Your task to perform on an android device: Go to Yahoo.com Image 0: 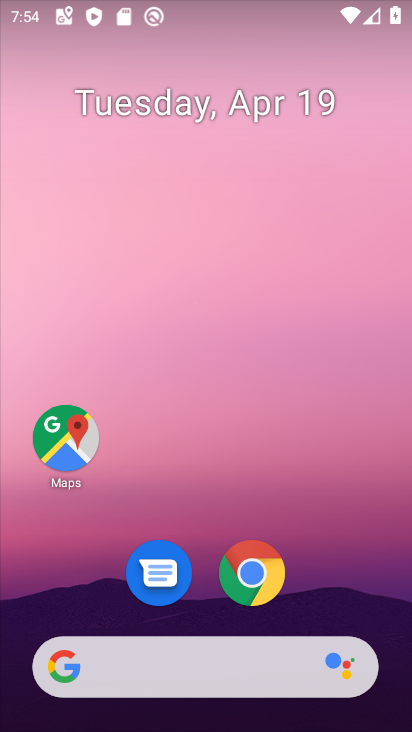
Step 0: click (249, 560)
Your task to perform on an android device: Go to Yahoo.com Image 1: 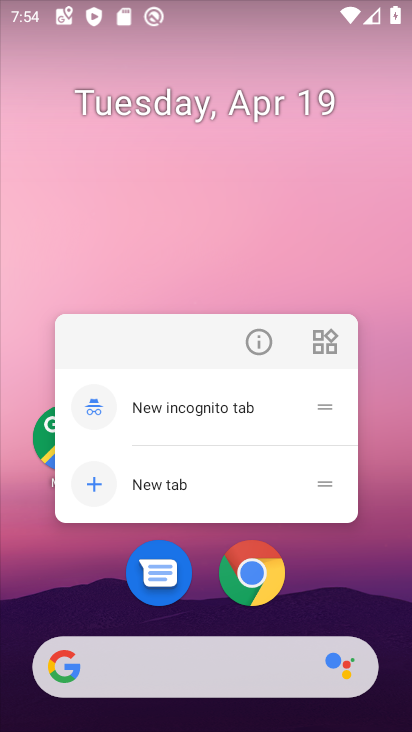
Step 1: click (247, 558)
Your task to perform on an android device: Go to Yahoo.com Image 2: 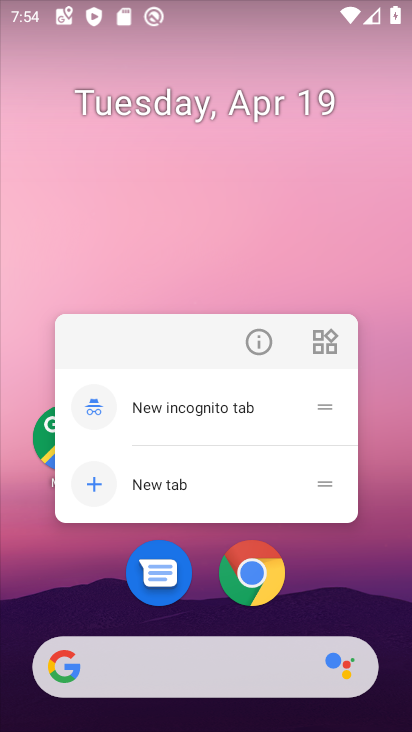
Step 2: drag from (204, 702) to (199, 30)
Your task to perform on an android device: Go to Yahoo.com Image 3: 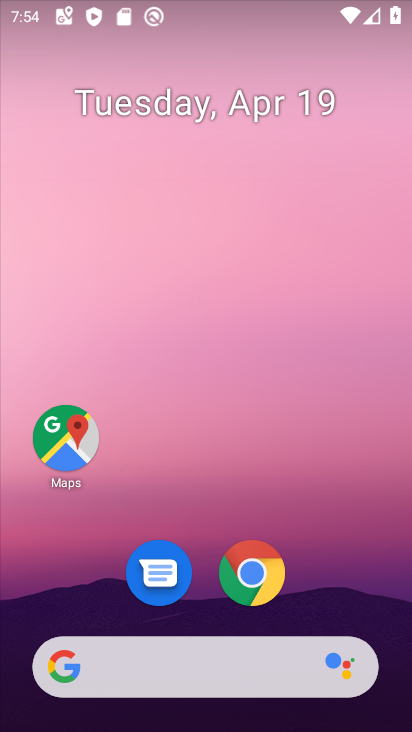
Step 3: drag from (214, 706) to (193, 48)
Your task to perform on an android device: Go to Yahoo.com Image 4: 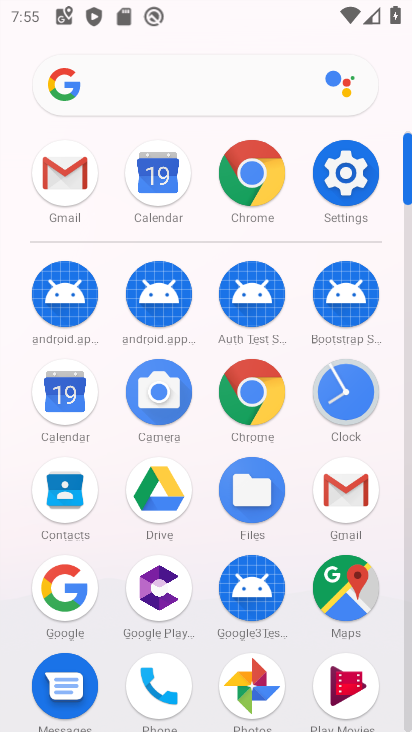
Step 4: click (256, 169)
Your task to perform on an android device: Go to Yahoo.com Image 5: 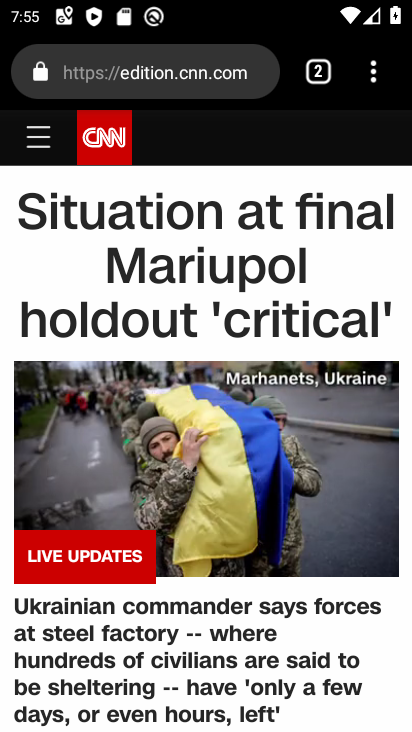
Step 5: click (365, 78)
Your task to perform on an android device: Go to Yahoo.com Image 6: 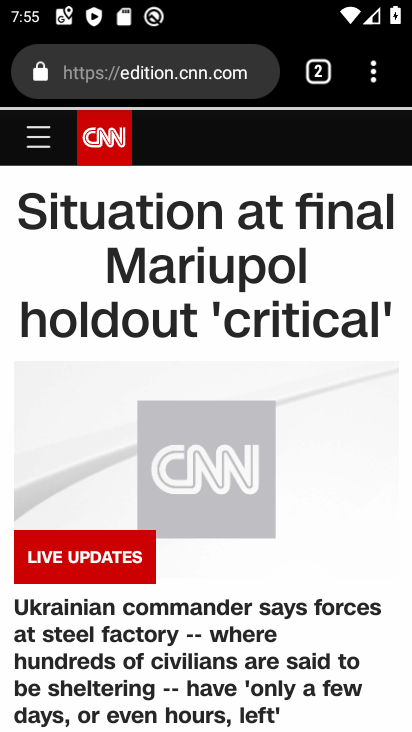
Step 6: click (187, 68)
Your task to perform on an android device: Go to Yahoo.com Image 7: 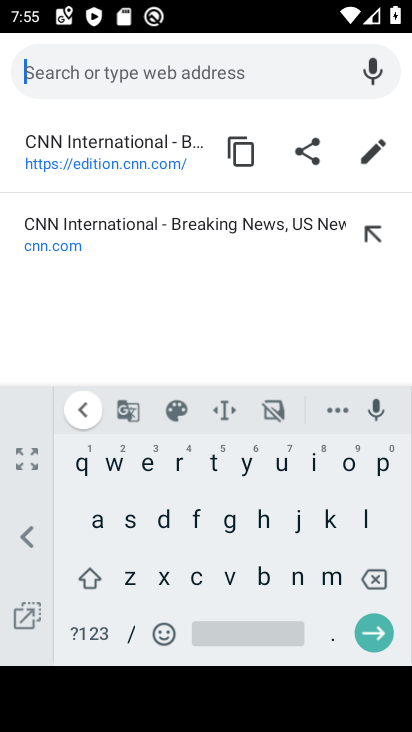
Step 7: click (245, 461)
Your task to perform on an android device: Go to Yahoo.com Image 8: 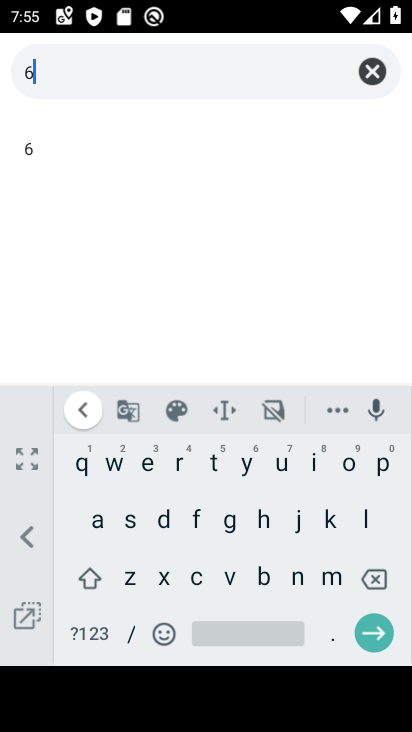
Step 8: click (29, 459)
Your task to perform on an android device: Go to Yahoo.com Image 9: 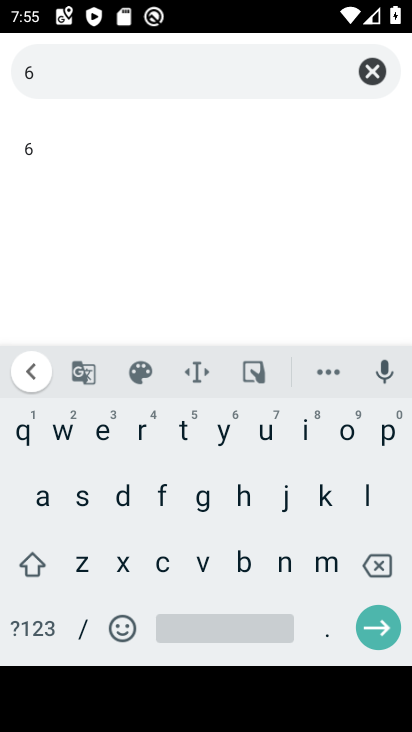
Step 9: click (381, 562)
Your task to perform on an android device: Go to Yahoo.com Image 10: 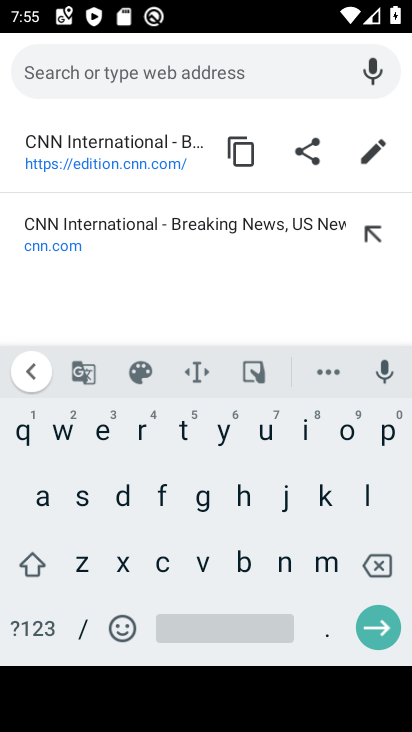
Step 10: click (228, 438)
Your task to perform on an android device: Go to Yahoo.com Image 11: 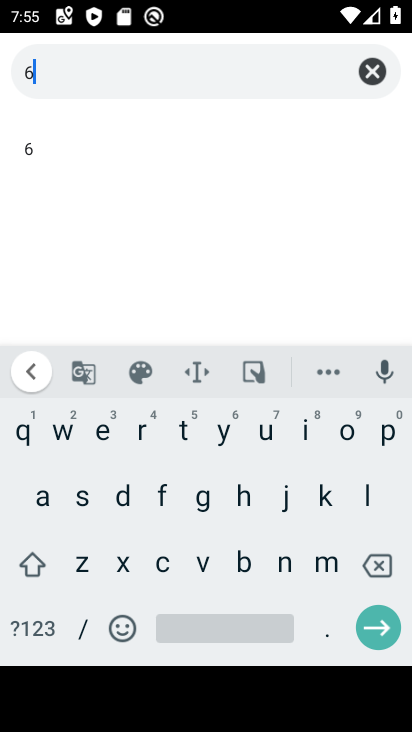
Step 11: click (375, 563)
Your task to perform on an android device: Go to Yahoo.com Image 12: 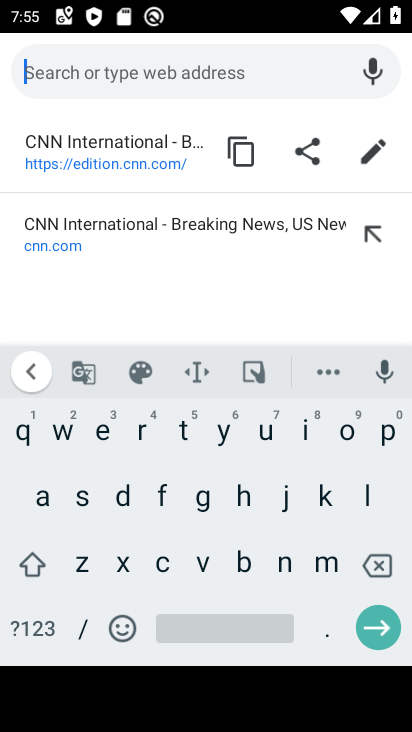
Step 12: click (223, 437)
Your task to perform on an android device: Go to Yahoo.com Image 13: 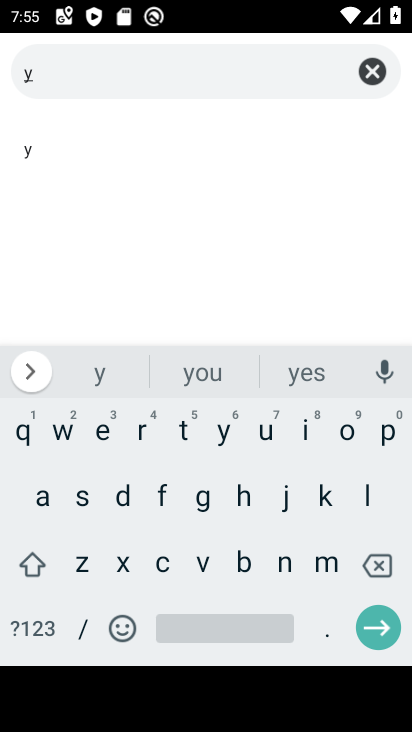
Step 13: click (42, 502)
Your task to perform on an android device: Go to Yahoo.com Image 14: 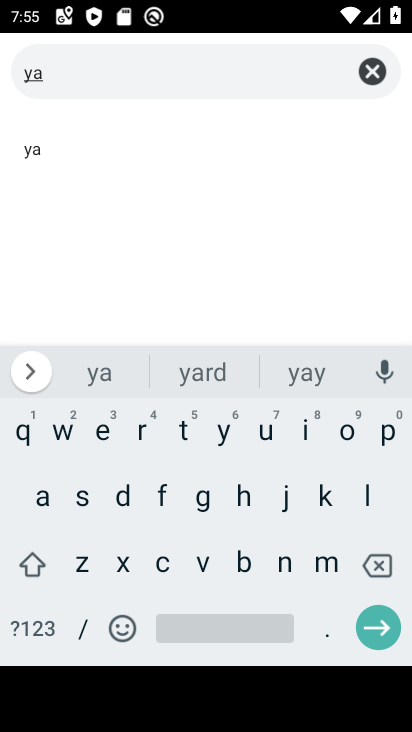
Step 14: click (242, 502)
Your task to perform on an android device: Go to Yahoo.com Image 15: 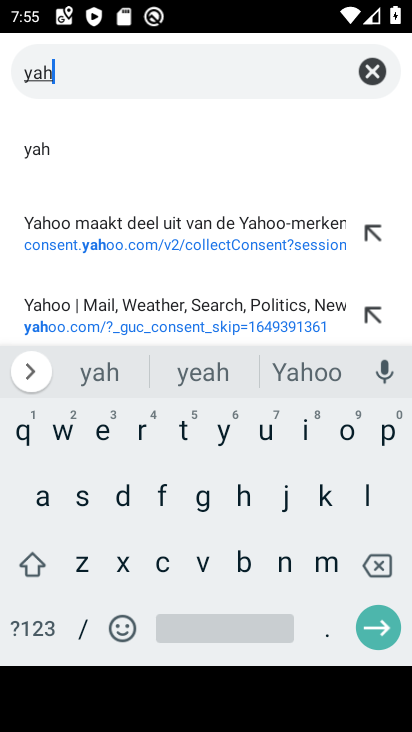
Step 15: click (294, 378)
Your task to perform on an android device: Go to Yahoo.com Image 16: 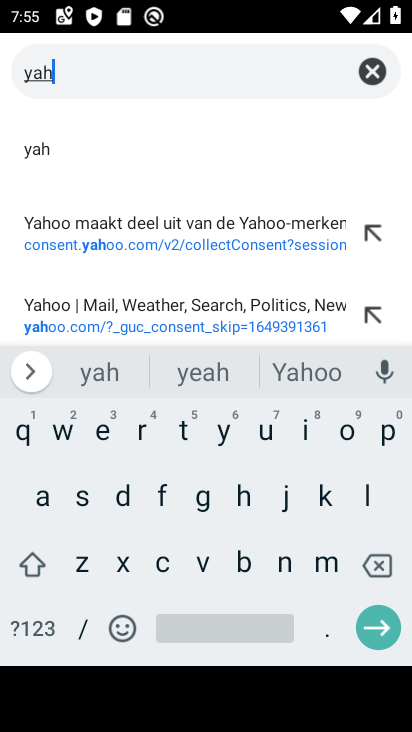
Step 16: click (306, 379)
Your task to perform on an android device: Go to Yahoo.com Image 17: 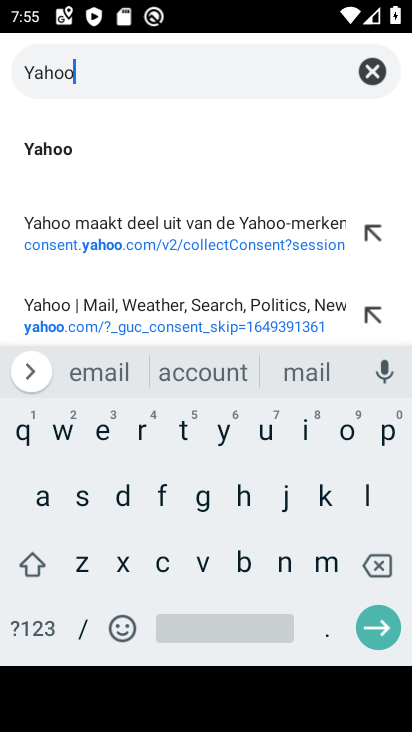
Step 17: click (329, 631)
Your task to perform on an android device: Go to Yahoo.com Image 18: 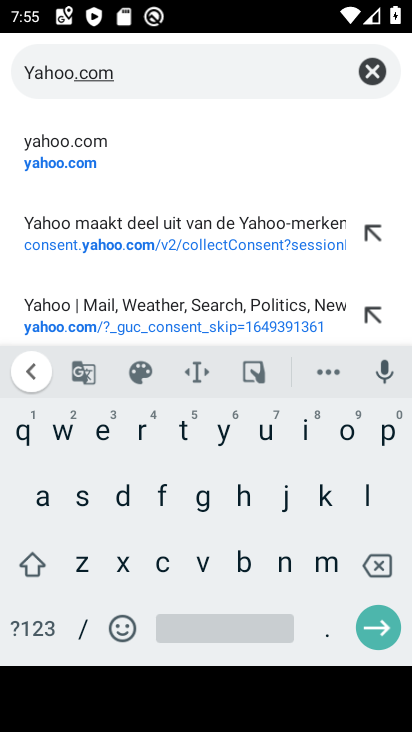
Step 18: click (373, 627)
Your task to perform on an android device: Go to Yahoo.com Image 19: 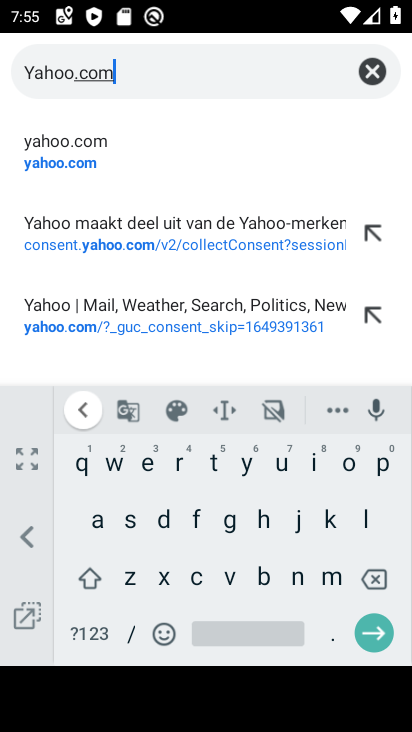
Step 19: click (370, 634)
Your task to perform on an android device: Go to Yahoo.com Image 20: 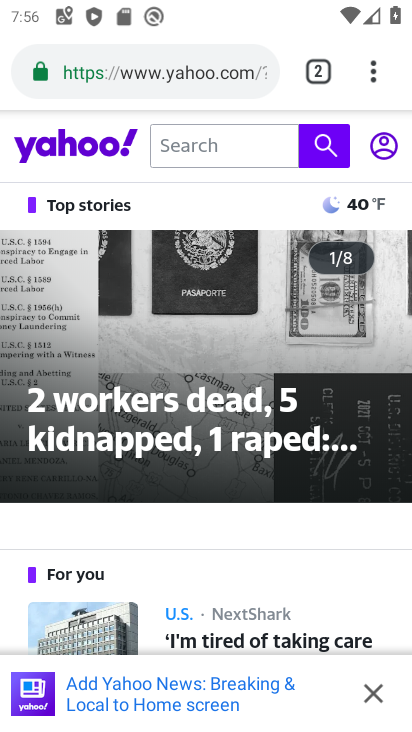
Step 20: task complete